Your task to perform on an android device: Show me recent news Image 0: 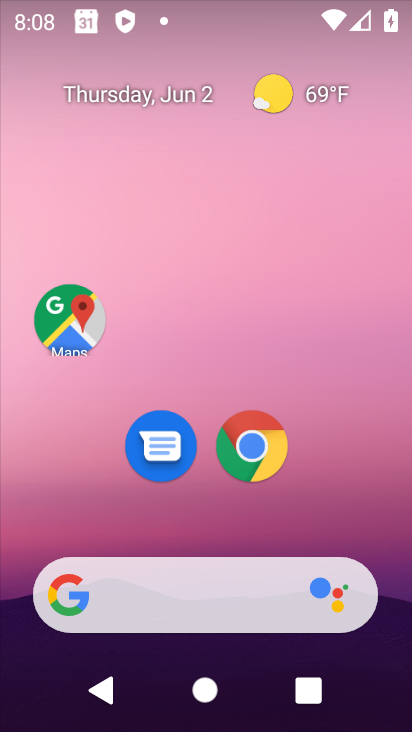
Step 0: drag from (215, 528) to (236, 155)
Your task to perform on an android device: Show me recent news Image 1: 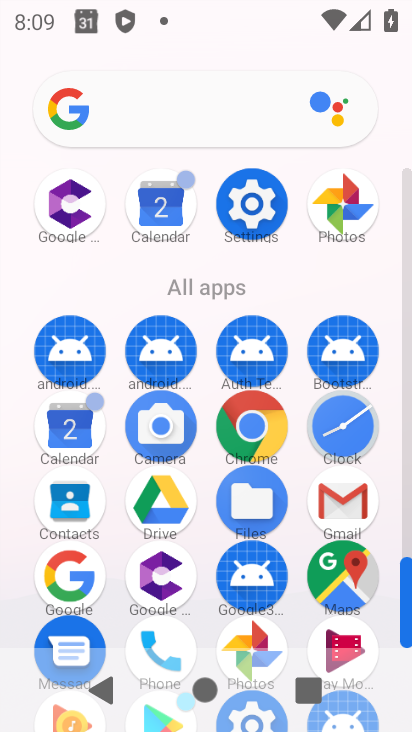
Step 1: click (165, 116)
Your task to perform on an android device: Show me recent news Image 2: 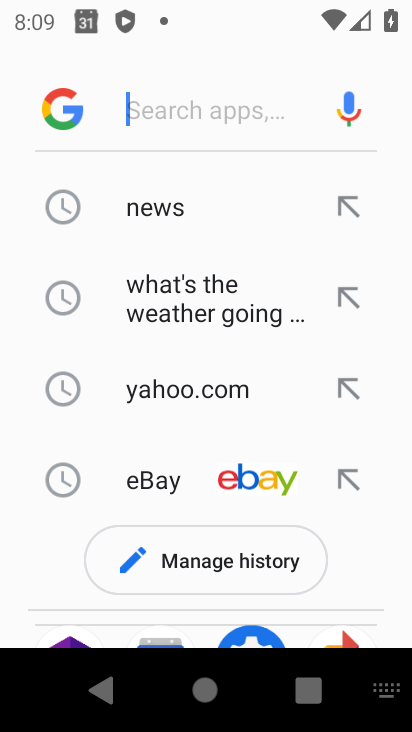
Step 2: type "recent news"
Your task to perform on an android device: Show me recent news Image 3: 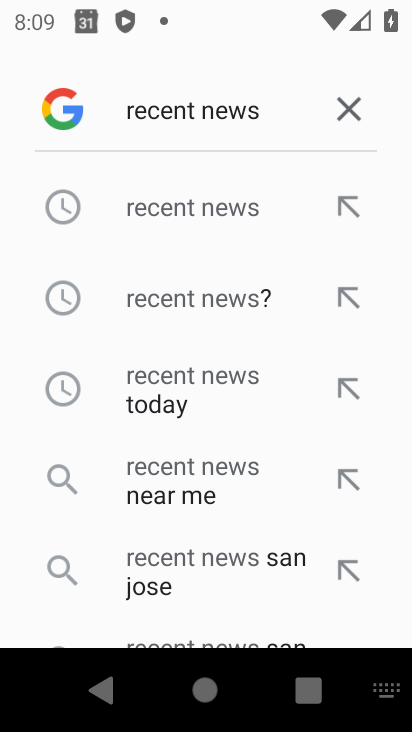
Step 3: click (200, 202)
Your task to perform on an android device: Show me recent news Image 4: 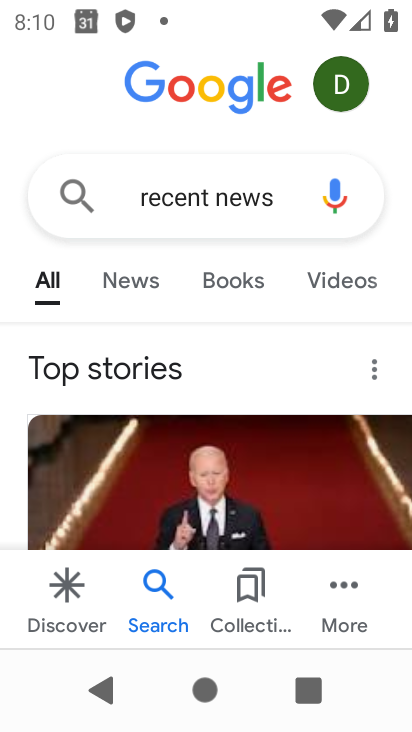
Step 4: task complete